Your task to perform on an android device: open chrome privacy settings Image 0: 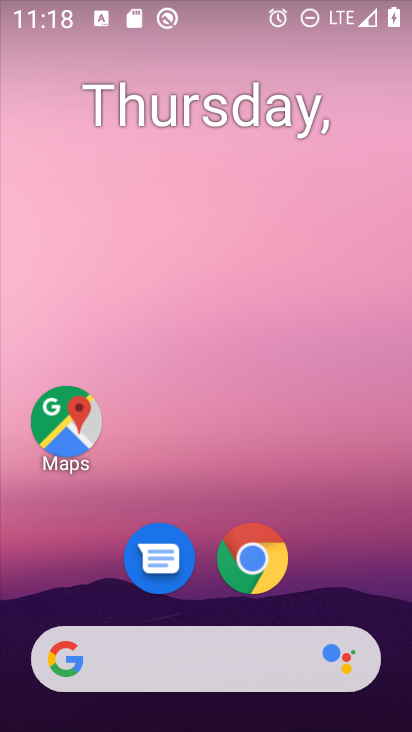
Step 0: click (253, 563)
Your task to perform on an android device: open chrome privacy settings Image 1: 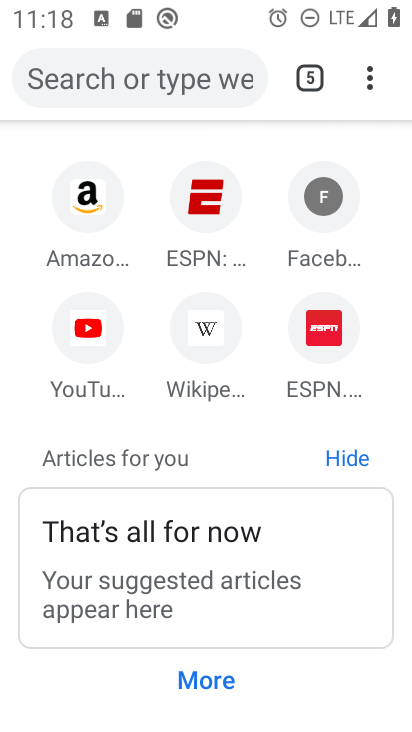
Step 1: click (370, 81)
Your task to perform on an android device: open chrome privacy settings Image 2: 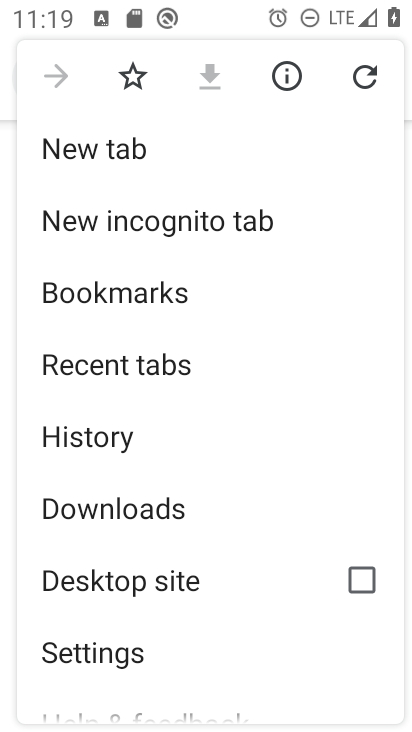
Step 2: click (127, 648)
Your task to perform on an android device: open chrome privacy settings Image 3: 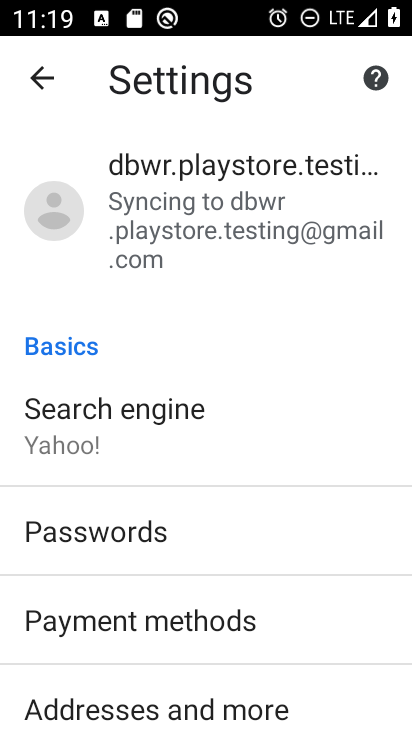
Step 3: drag from (303, 673) to (313, 352)
Your task to perform on an android device: open chrome privacy settings Image 4: 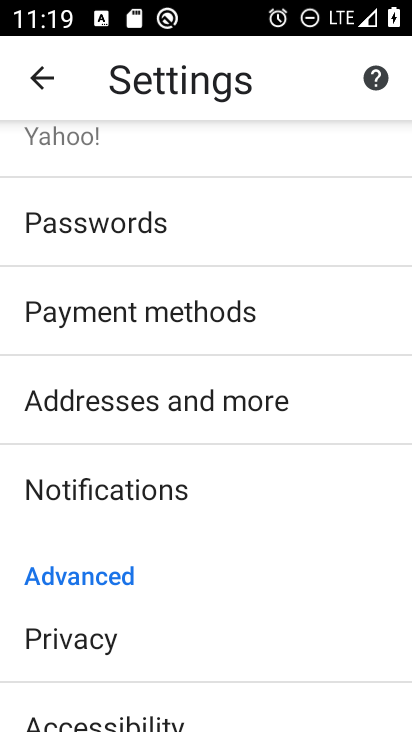
Step 4: drag from (275, 617) to (330, 272)
Your task to perform on an android device: open chrome privacy settings Image 5: 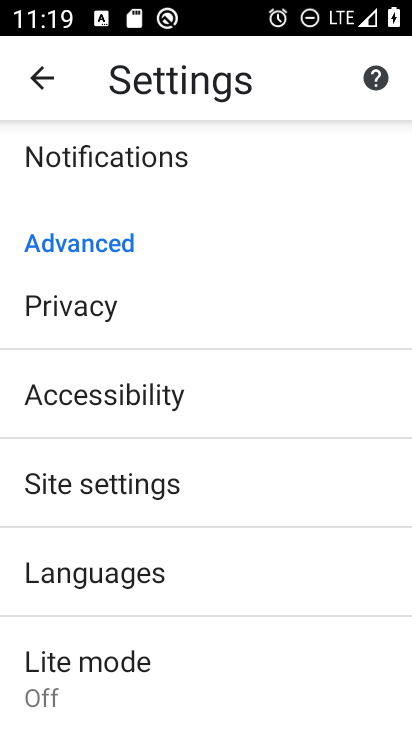
Step 5: click (51, 306)
Your task to perform on an android device: open chrome privacy settings Image 6: 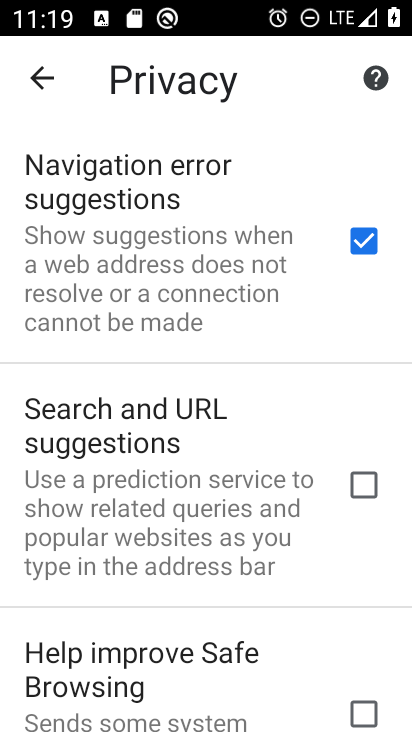
Step 6: task complete